Your task to perform on an android device: Open location settings Image 0: 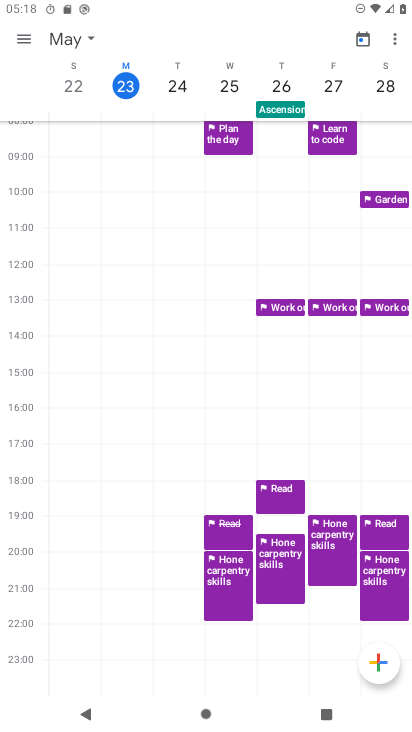
Step 0: press home button
Your task to perform on an android device: Open location settings Image 1: 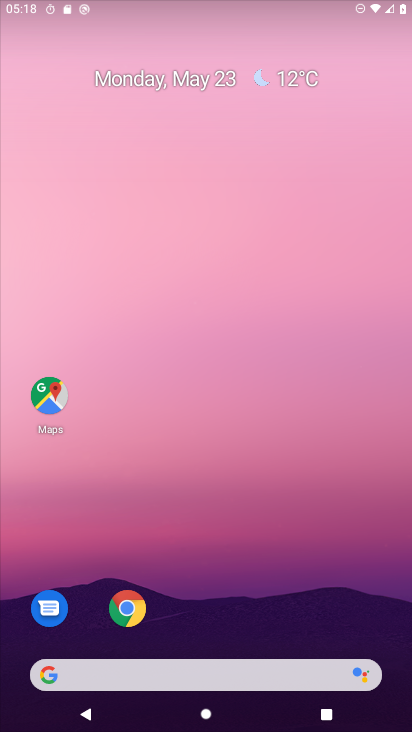
Step 1: drag from (257, 520) to (191, 116)
Your task to perform on an android device: Open location settings Image 2: 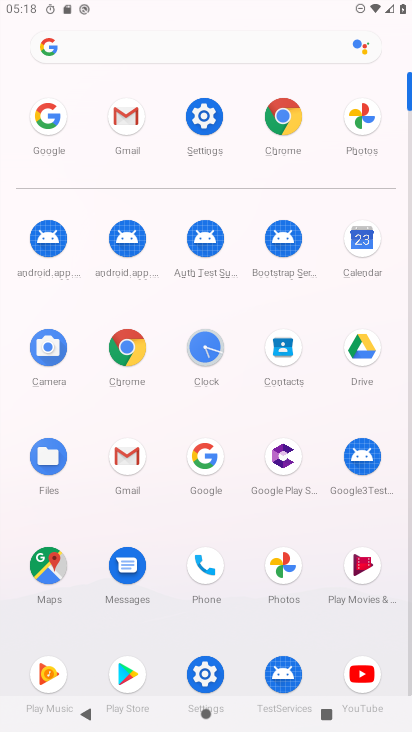
Step 2: click (217, 109)
Your task to perform on an android device: Open location settings Image 3: 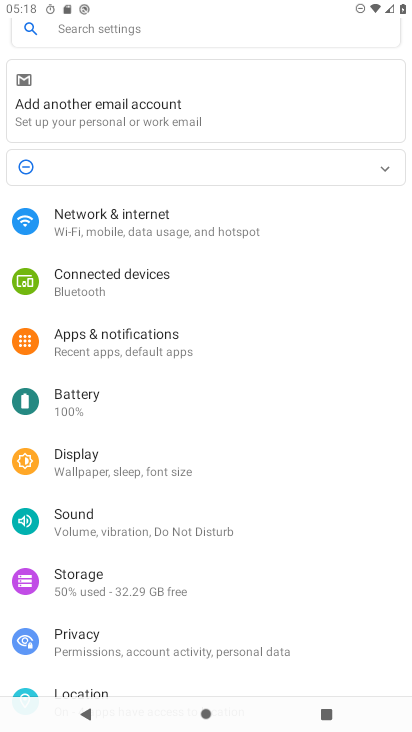
Step 3: drag from (218, 632) to (205, 254)
Your task to perform on an android device: Open location settings Image 4: 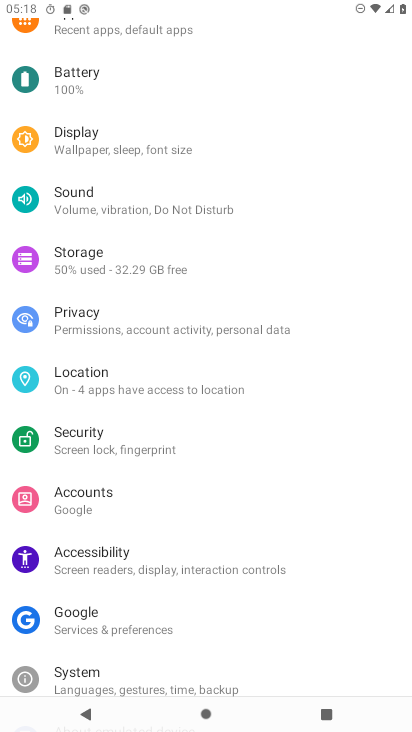
Step 4: click (138, 373)
Your task to perform on an android device: Open location settings Image 5: 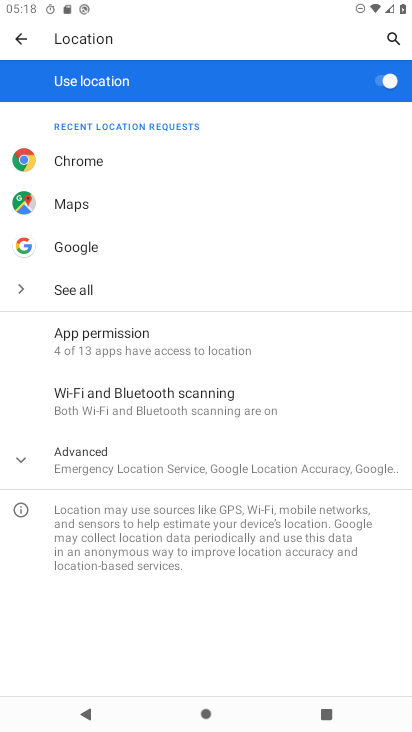
Step 5: task complete